Your task to perform on an android device: open wifi settings Image 0: 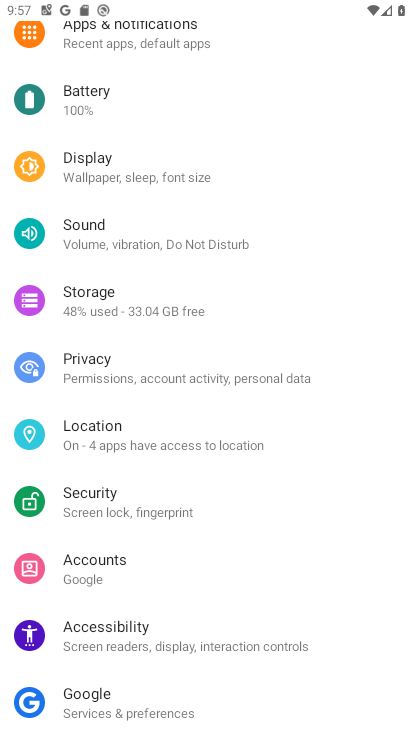
Step 0: press home button
Your task to perform on an android device: open wifi settings Image 1: 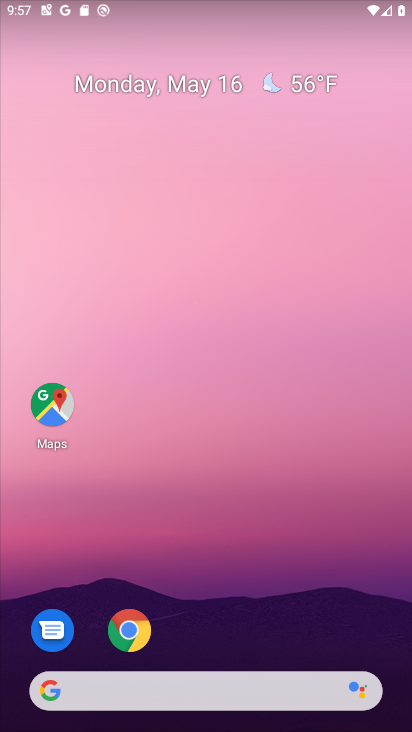
Step 1: drag from (230, 584) to (243, 143)
Your task to perform on an android device: open wifi settings Image 2: 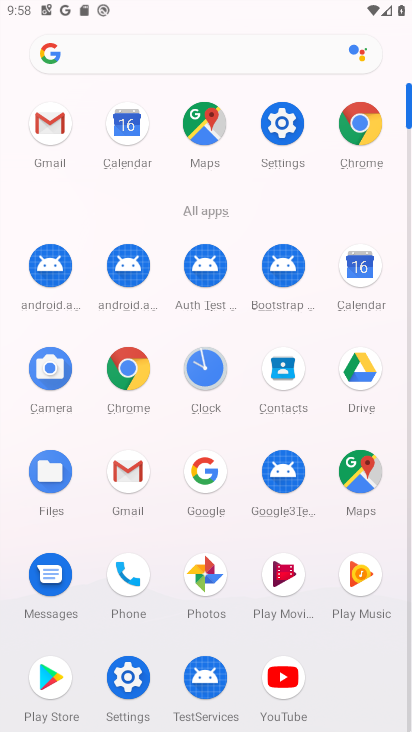
Step 2: click (290, 111)
Your task to perform on an android device: open wifi settings Image 3: 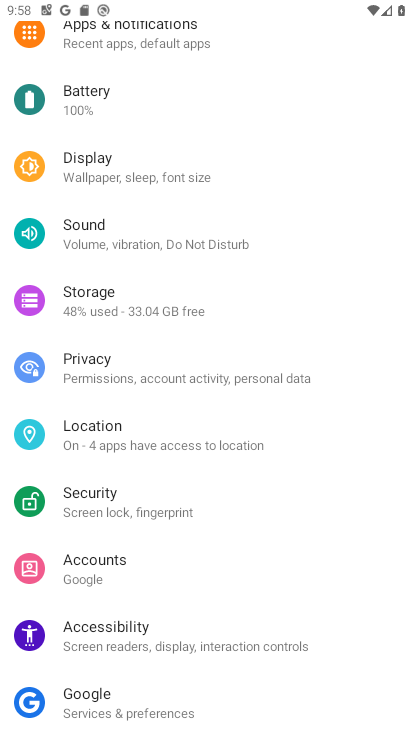
Step 3: drag from (208, 168) to (213, 550)
Your task to perform on an android device: open wifi settings Image 4: 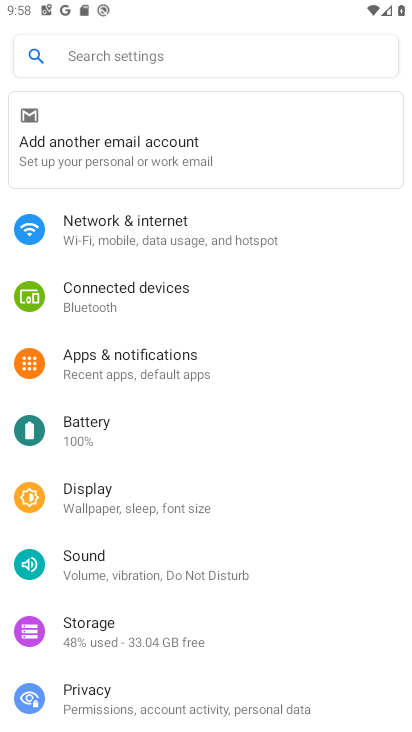
Step 4: click (207, 233)
Your task to perform on an android device: open wifi settings Image 5: 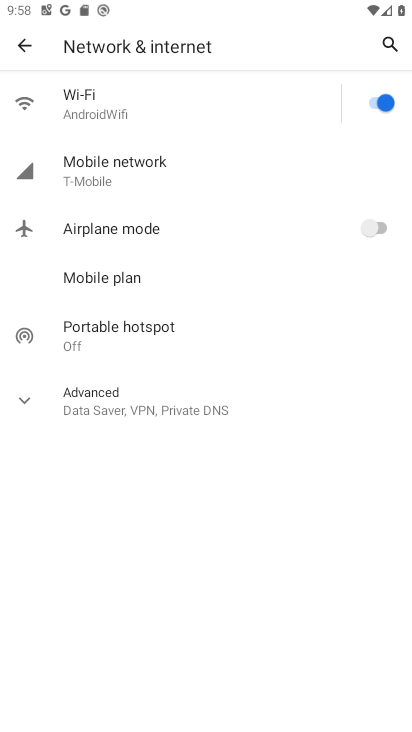
Step 5: click (169, 101)
Your task to perform on an android device: open wifi settings Image 6: 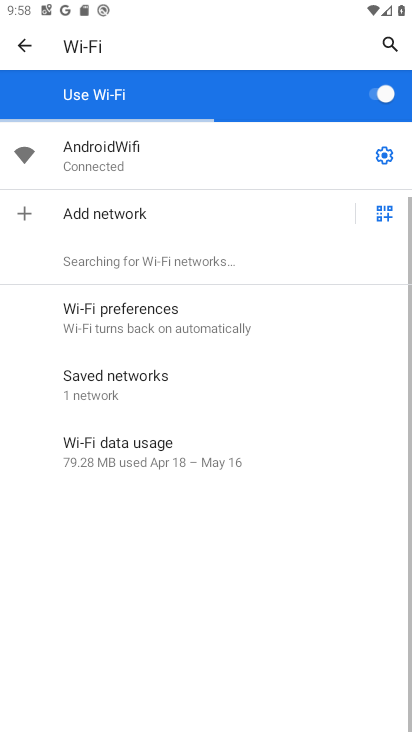
Step 6: task complete